Your task to perform on an android device: see tabs open on other devices in the chrome app Image 0: 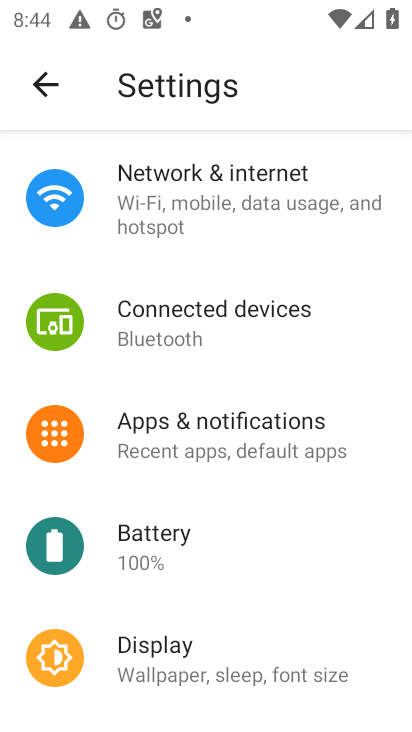
Step 0: press home button
Your task to perform on an android device: see tabs open on other devices in the chrome app Image 1: 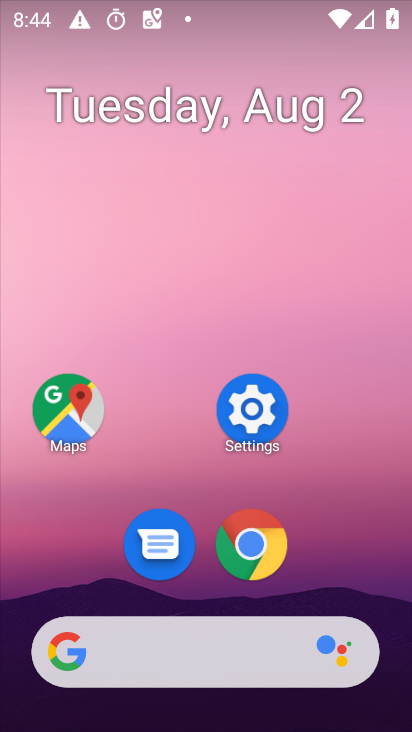
Step 1: click (254, 544)
Your task to perform on an android device: see tabs open on other devices in the chrome app Image 2: 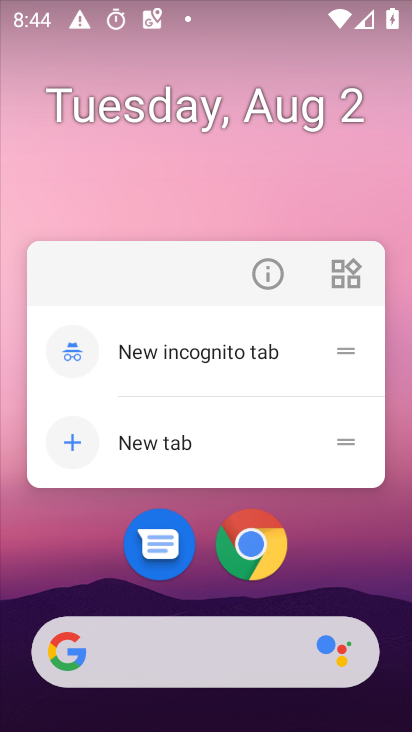
Step 2: click (242, 558)
Your task to perform on an android device: see tabs open on other devices in the chrome app Image 3: 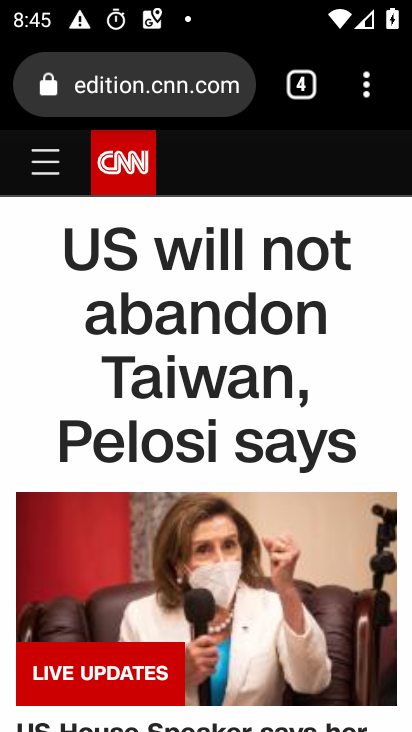
Step 3: task complete